Your task to perform on an android device: Open the Play Movies app and select the watchlist tab. Image 0: 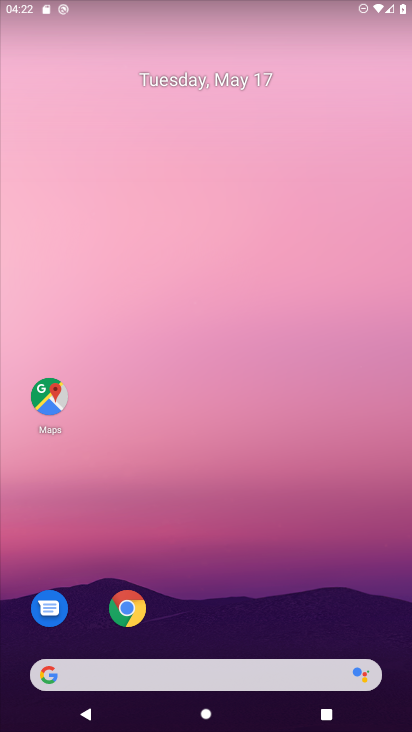
Step 0: drag from (233, 659) to (249, 198)
Your task to perform on an android device: Open the Play Movies app and select the watchlist tab. Image 1: 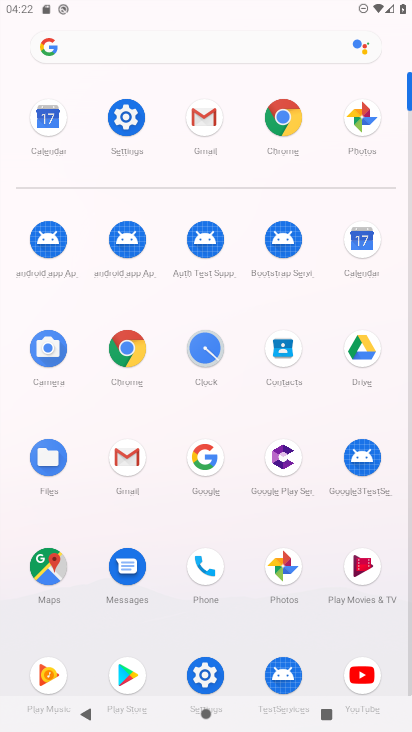
Step 1: drag from (253, 683) to (233, 321)
Your task to perform on an android device: Open the Play Movies app and select the watchlist tab. Image 2: 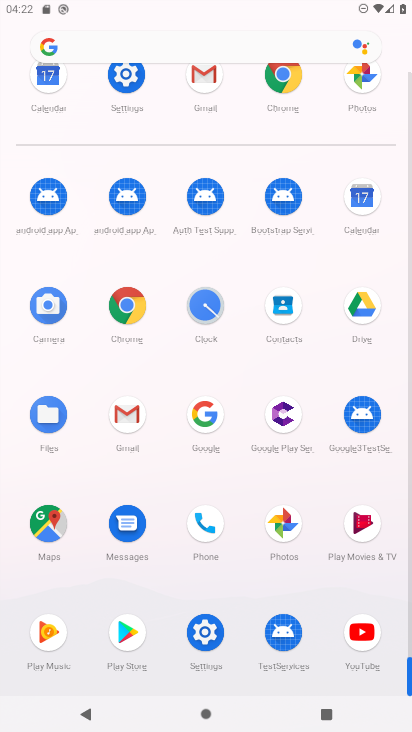
Step 2: click (369, 530)
Your task to perform on an android device: Open the Play Movies app and select the watchlist tab. Image 3: 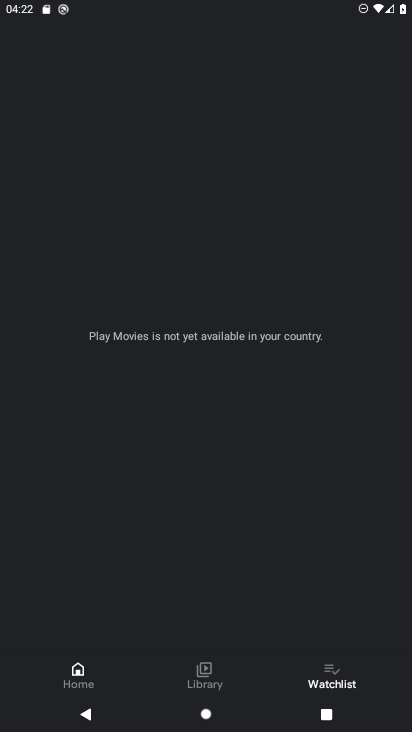
Step 3: click (326, 674)
Your task to perform on an android device: Open the Play Movies app and select the watchlist tab. Image 4: 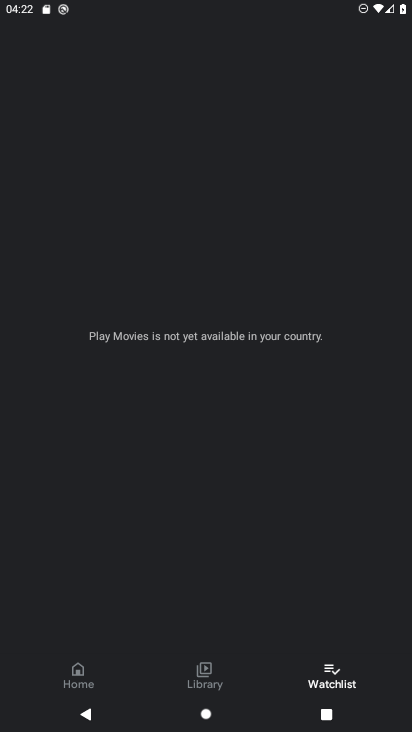
Step 4: task complete